Your task to perform on an android device: turn on notifications settings in the gmail app Image 0: 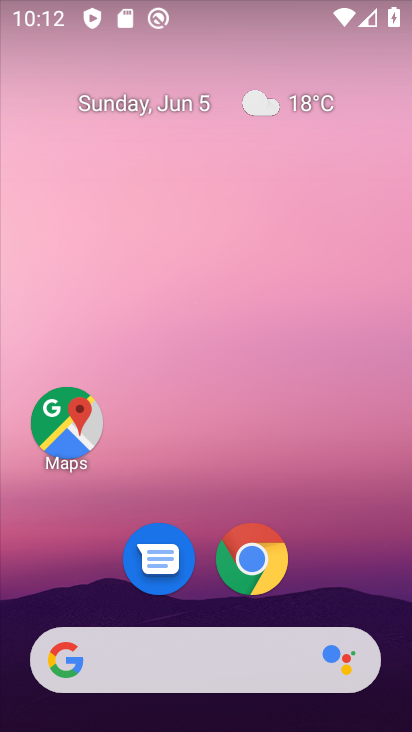
Step 0: drag from (322, 574) to (344, 102)
Your task to perform on an android device: turn on notifications settings in the gmail app Image 1: 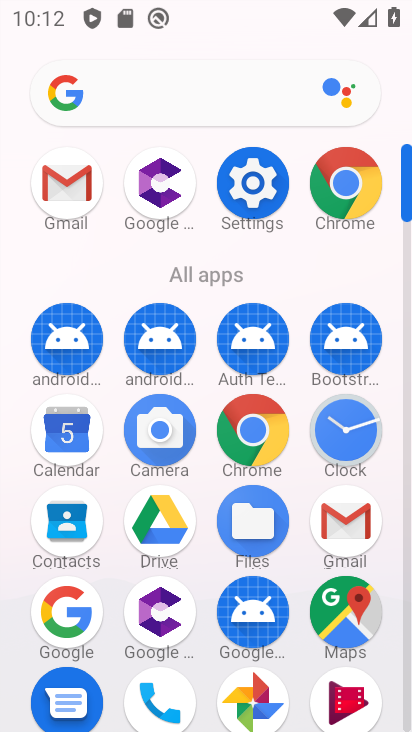
Step 1: click (340, 522)
Your task to perform on an android device: turn on notifications settings in the gmail app Image 2: 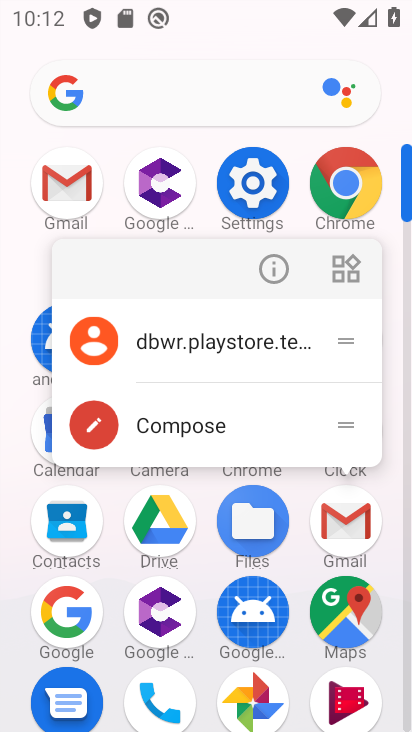
Step 2: click (274, 257)
Your task to perform on an android device: turn on notifications settings in the gmail app Image 3: 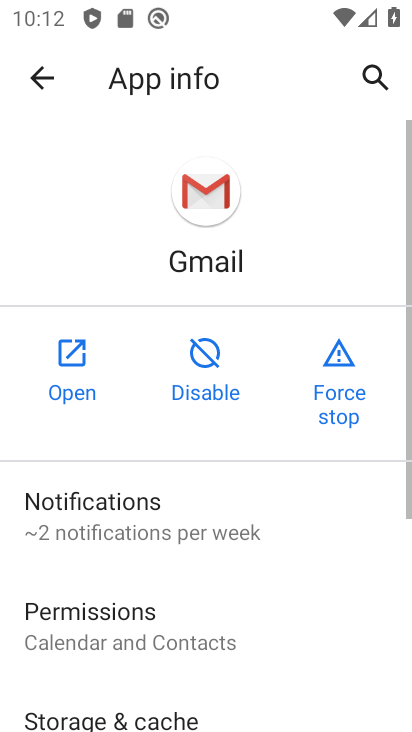
Step 3: click (49, 490)
Your task to perform on an android device: turn on notifications settings in the gmail app Image 4: 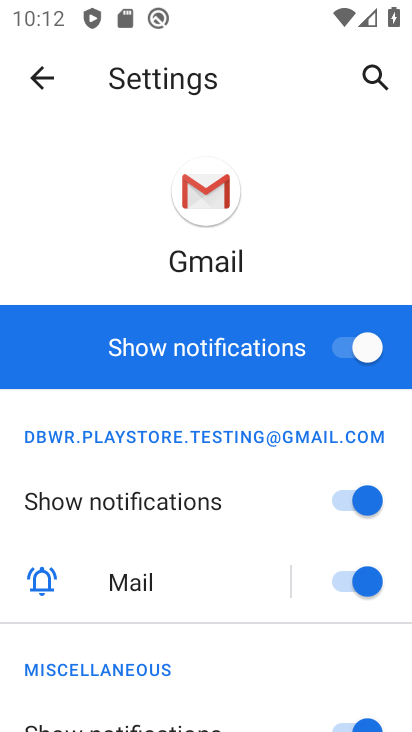
Step 4: task complete